Your task to perform on an android device: Open the Play Movies app and select the watchlist tab. Image 0: 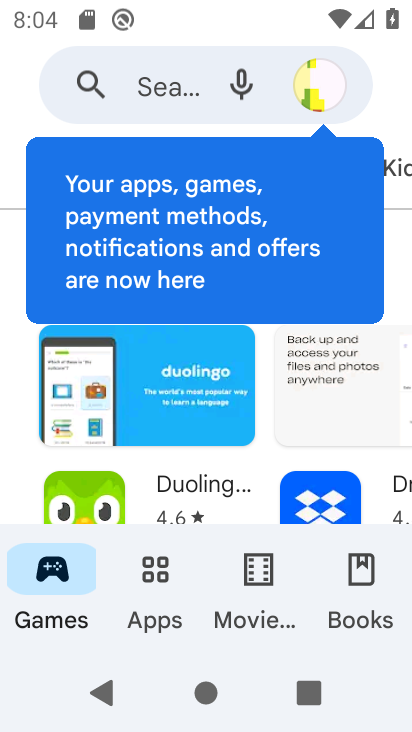
Step 0: press home button
Your task to perform on an android device: Open the Play Movies app and select the watchlist tab. Image 1: 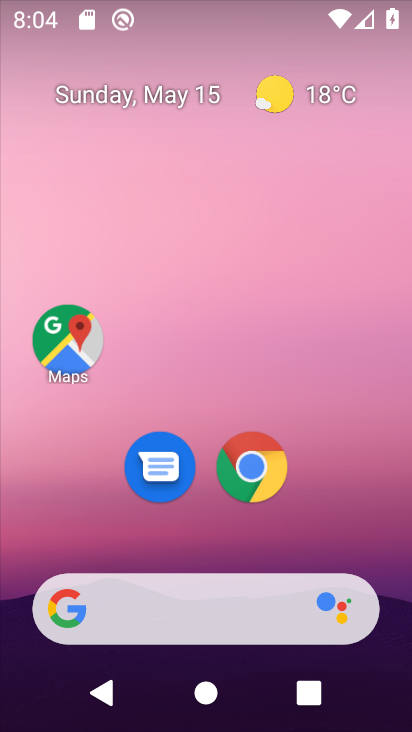
Step 1: drag from (229, 553) to (319, 21)
Your task to perform on an android device: Open the Play Movies app and select the watchlist tab. Image 2: 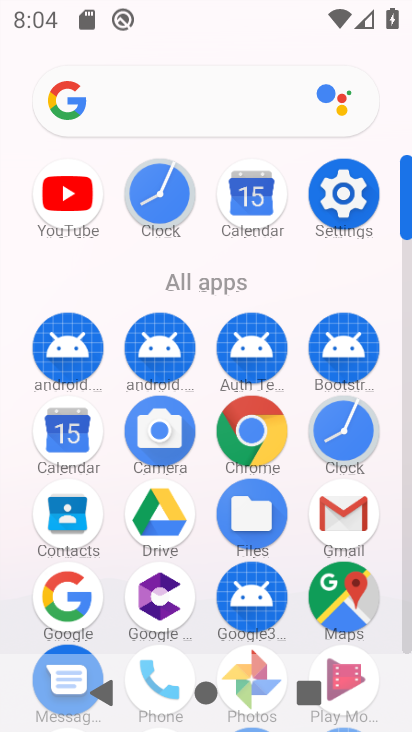
Step 2: drag from (263, 635) to (353, 255)
Your task to perform on an android device: Open the Play Movies app and select the watchlist tab. Image 3: 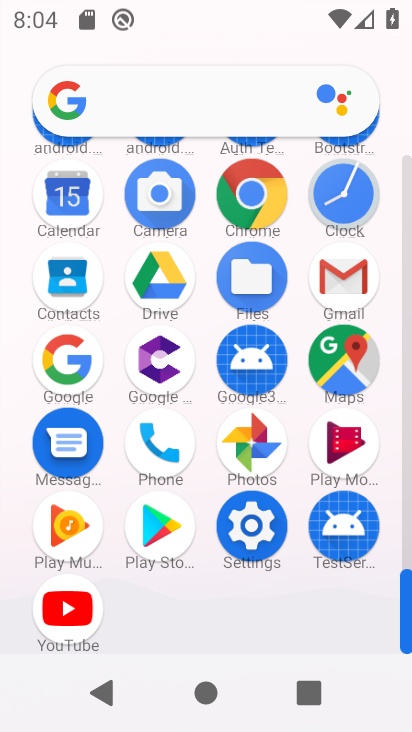
Step 3: click (358, 464)
Your task to perform on an android device: Open the Play Movies app and select the watchlist tab. Image 4: 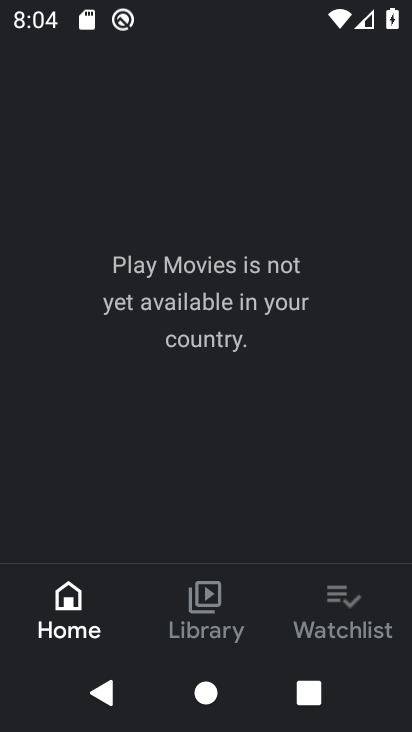
Step 4: click (341, 597)
Your task to perform on an android device: Open the Play Movies app and select the watchlist tab. Image 5: 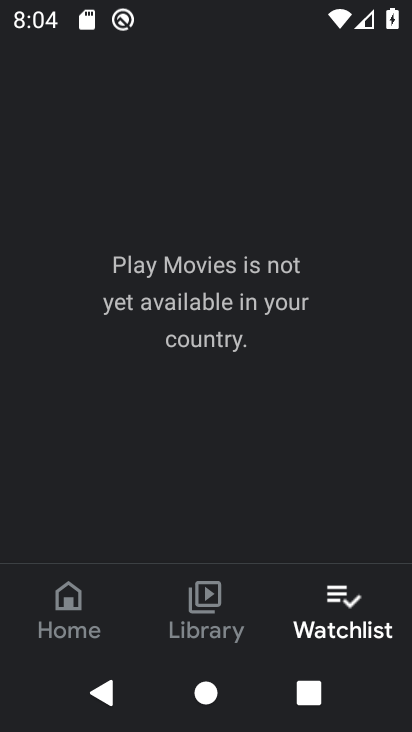
Step 5: task complete